Your task to perform on an android device: uninstall "Duolingo: language lessons" Image 0: 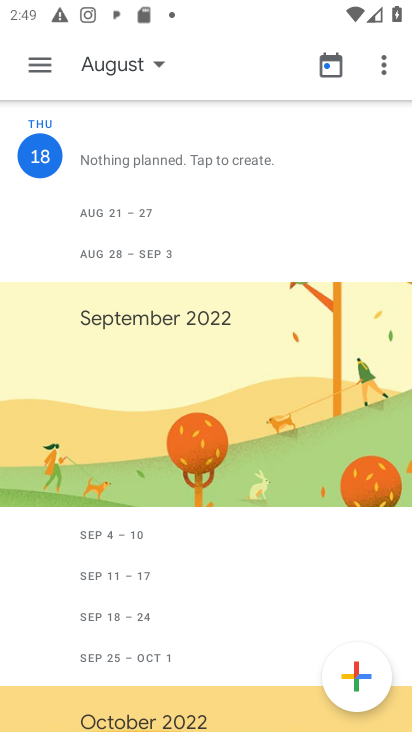
Step 0: press home button
Your task to perform on an android device: uninstall "Duolingo: language lessons" Image 1: 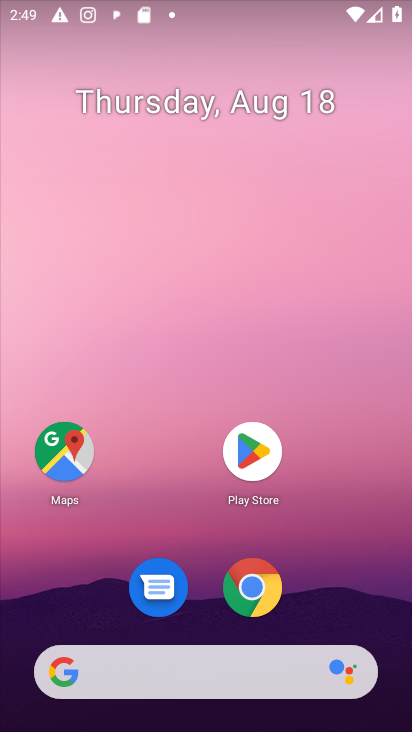
Step 1: click (262, 448)
Your task to perform on an android device: uninstall "Duolingo: language lessons" Image 2: 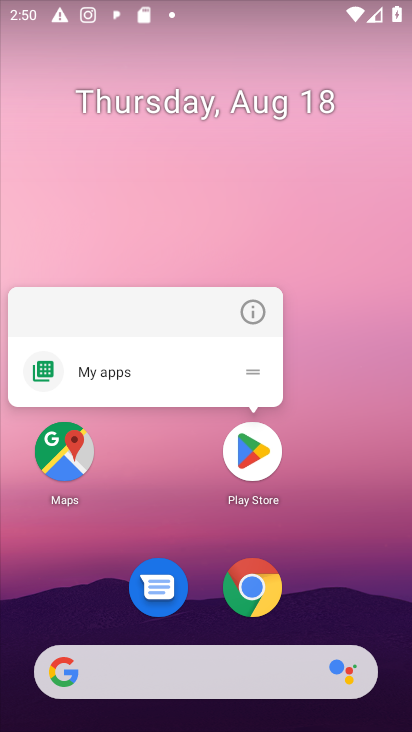
Step 2: click (262, 450)
Your task to perform on an android device: uninstall "Duolingo: language lessons" Image 3: 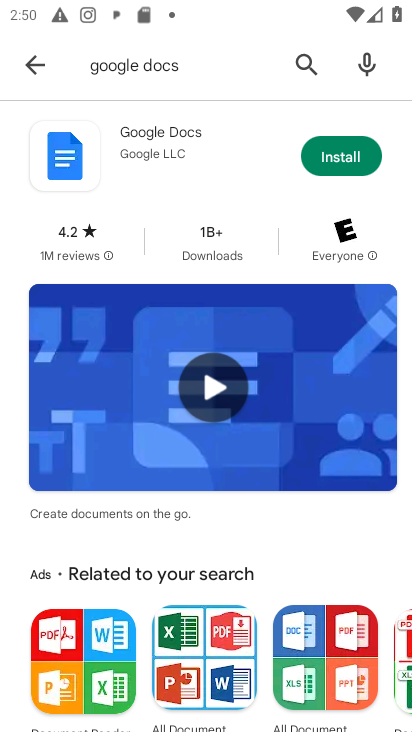
Step 3: click (306, 62)
Your task to perform on an android device: uninstall "Duolingo: language lessons" Image 4: 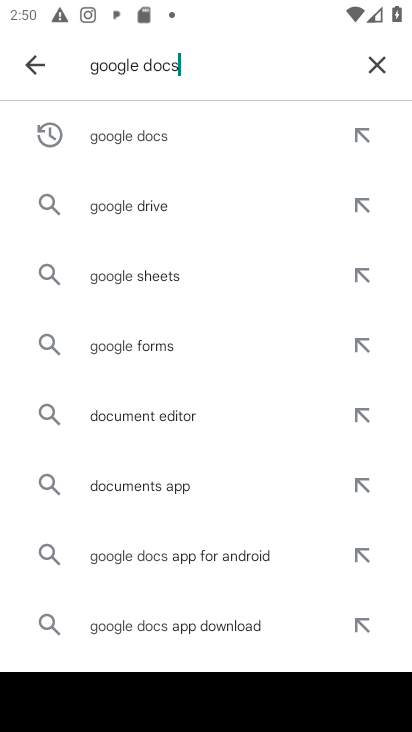
Step 4: click (371, 58)
Your task to perform on an android device: uninstall "Duolingo: language lessons" Image 5: 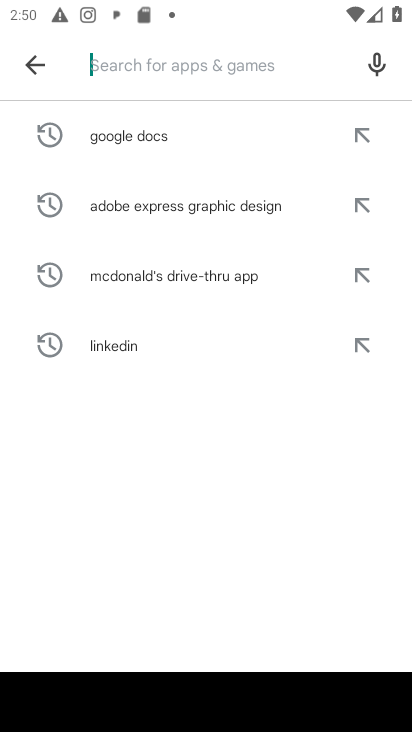
Step 5: type "Duolingo: language lessons"
Your task to perform on an android device: uninstall "Duolingo: language lessons" Image 6: 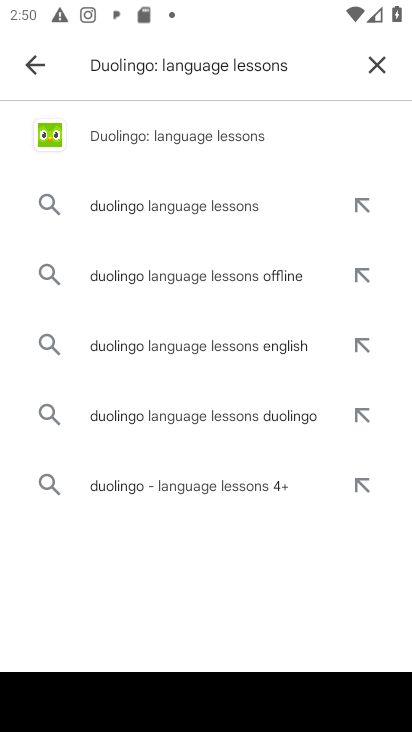
Step 6: click (199, 138)
Your task to perform on an android device: uninstall "Duolingo: language lessons" Image 7: 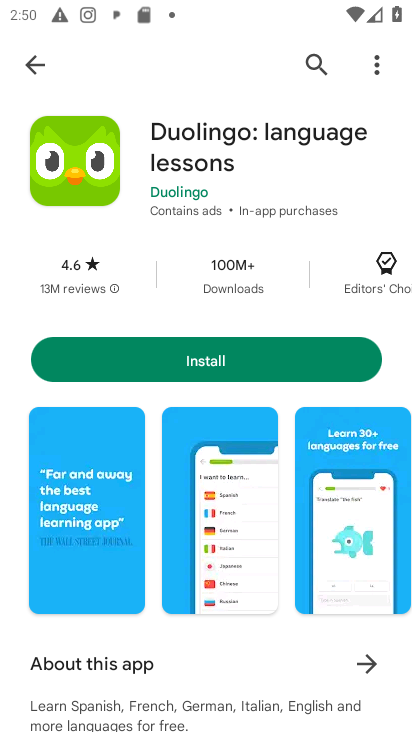
Step 7: task complete